Your task to perform on an android device: change text size in settings app Image 0: 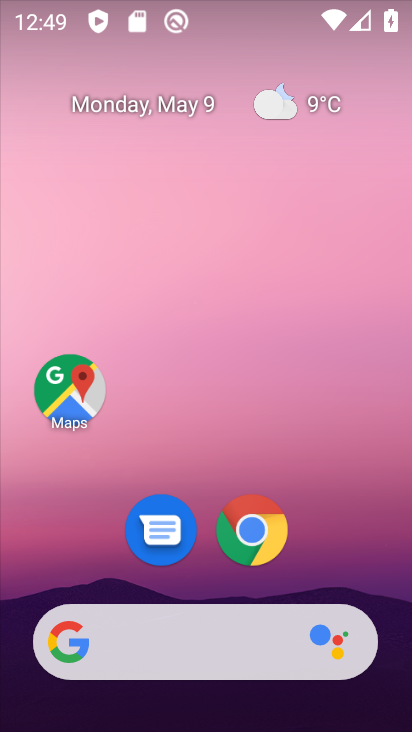
Step 0: drag from (313, 540) to (303, 232)
Your task to perform on an android device: change text size in settings app Image 1: 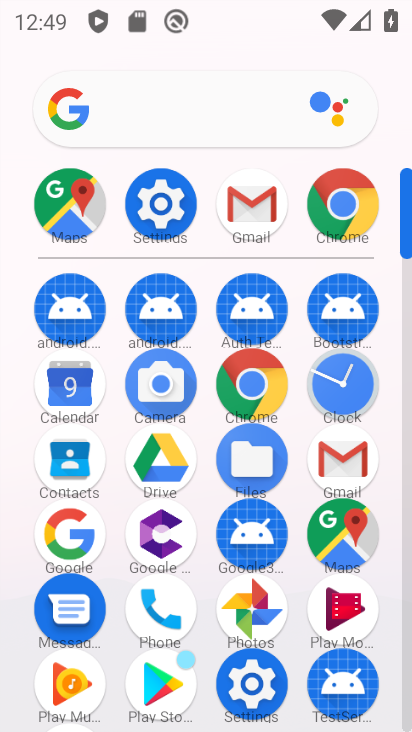
Step 1: click (145, 189)
Your task to perform on an android device: change text size in settings app Image 2: 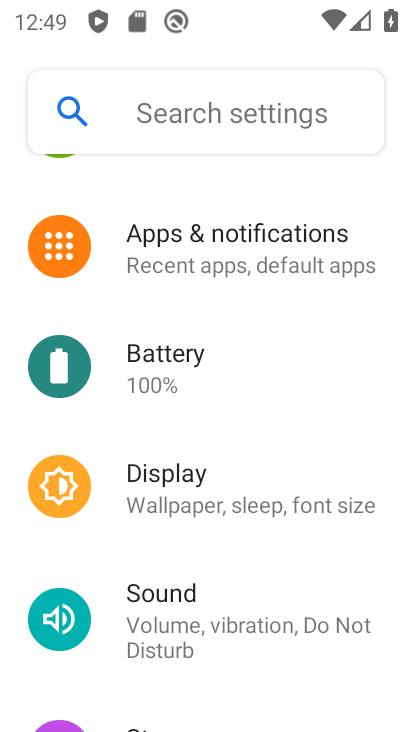
Step 2: drag from (273, 644) to (315, 248)
Your task to perform on an android device: change text size in settings app Image 3: 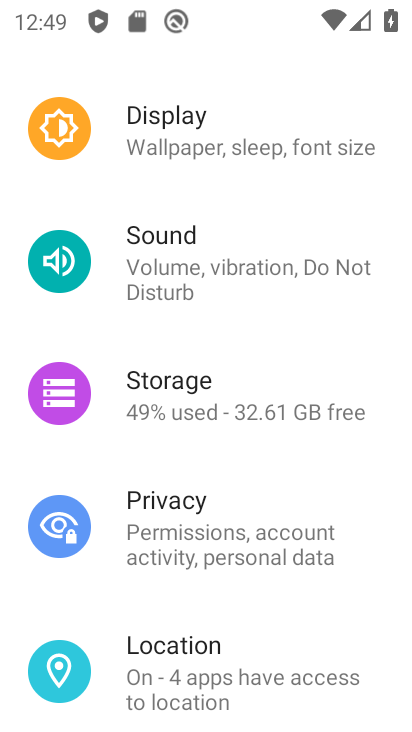
Step 3: drag from (203, 663) to (238, 217)
Your task to perform on an android device: change text size in settings app Image 4: 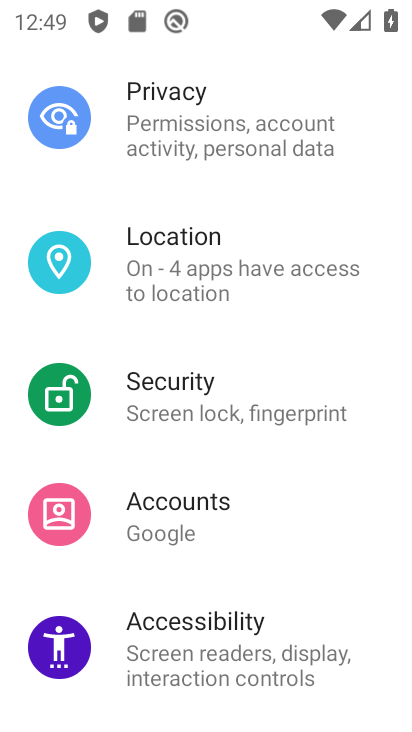
Step 4: click (211, 653)
Your task to perform on an android device: change text size in settings app Image 5: 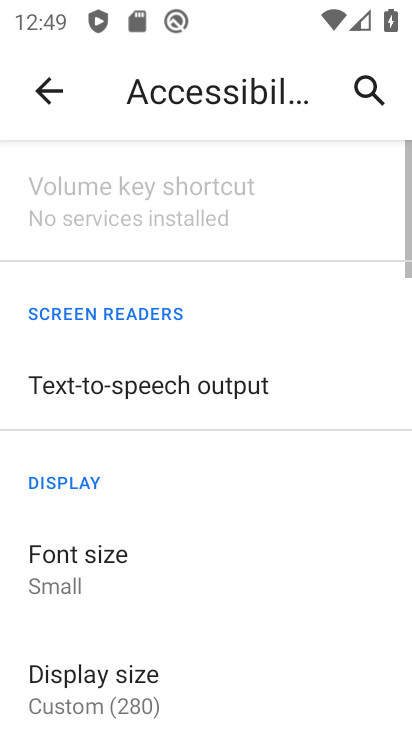
Step 5: click (133, 569)
Your task to perform on an android device: change text size in settings app Image 6: 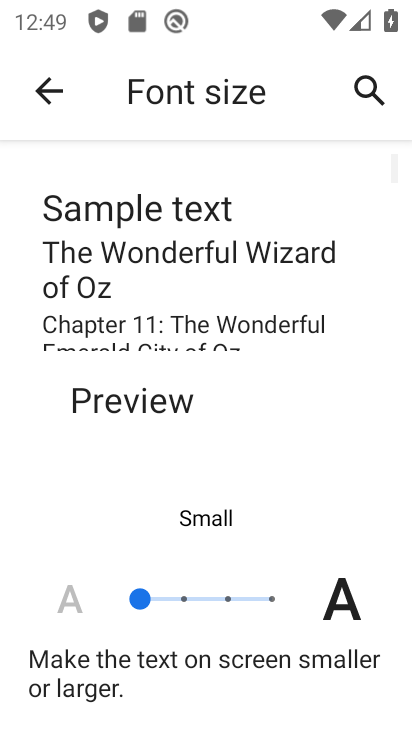
Step 6: click (217, 595)
Your task to perform on an android device: change text size in settings app Image 7: 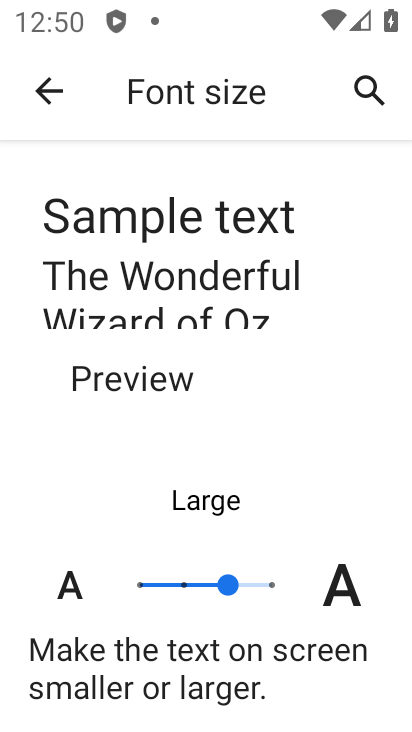
Step 7: task complete